Your task to perform on an android device: open app "Indeed Job Search" (install if not already installed) and go to login screen Image 0: 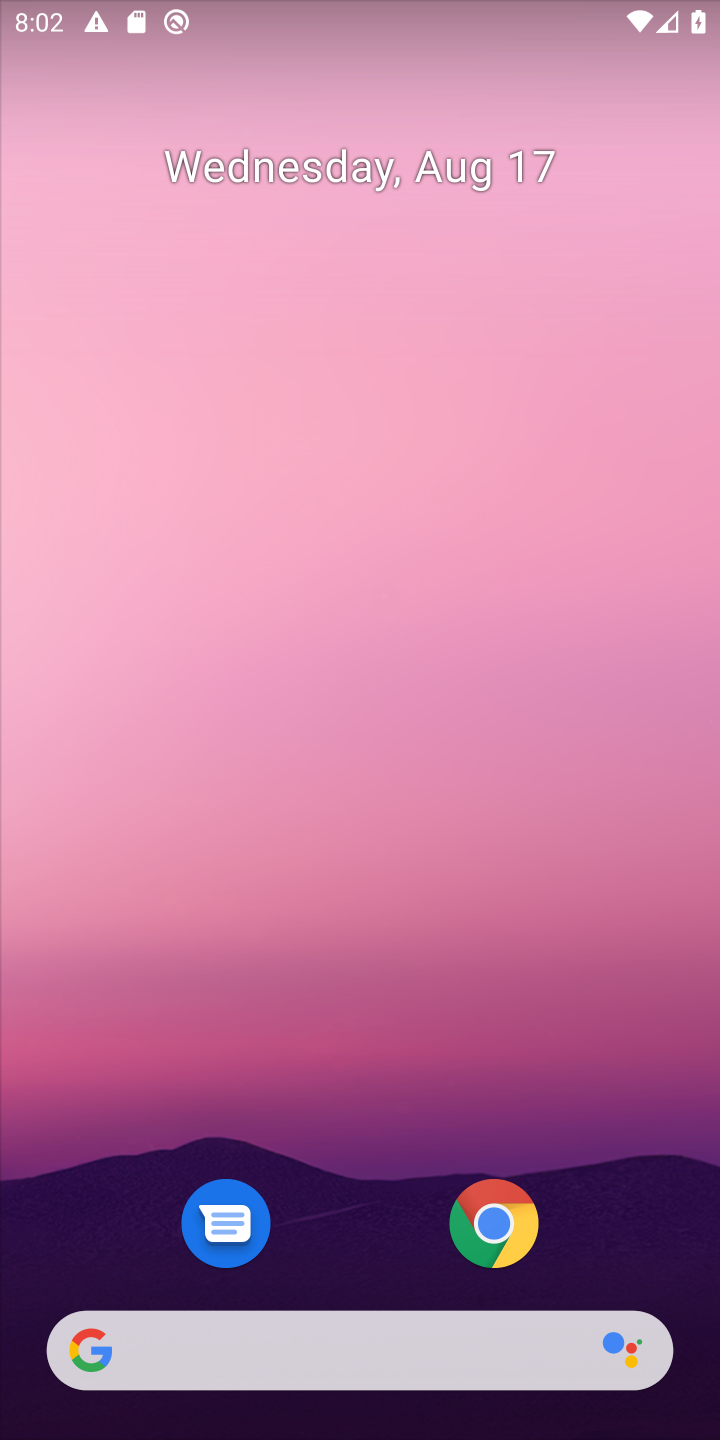
Step 0: click (210, 94)
Your task to perform on an android device: open app "Indeed Job Search" (install if not already installed) and go to login screen Image 1: 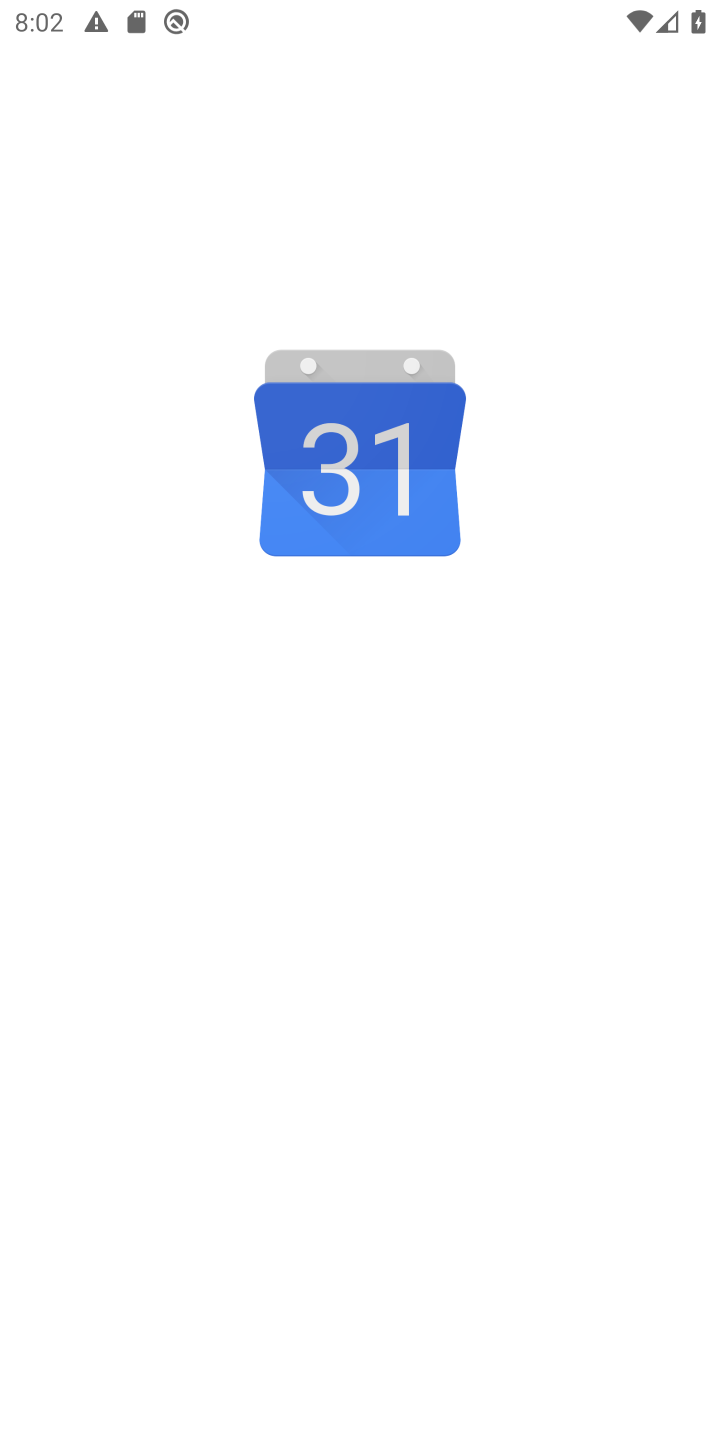
Step 1: drag from (395, 1115) to (395, 206)
Your task to perform on an android device: open app "Indeed Job Search" (install if not already installed) and go to login screen Image 2: 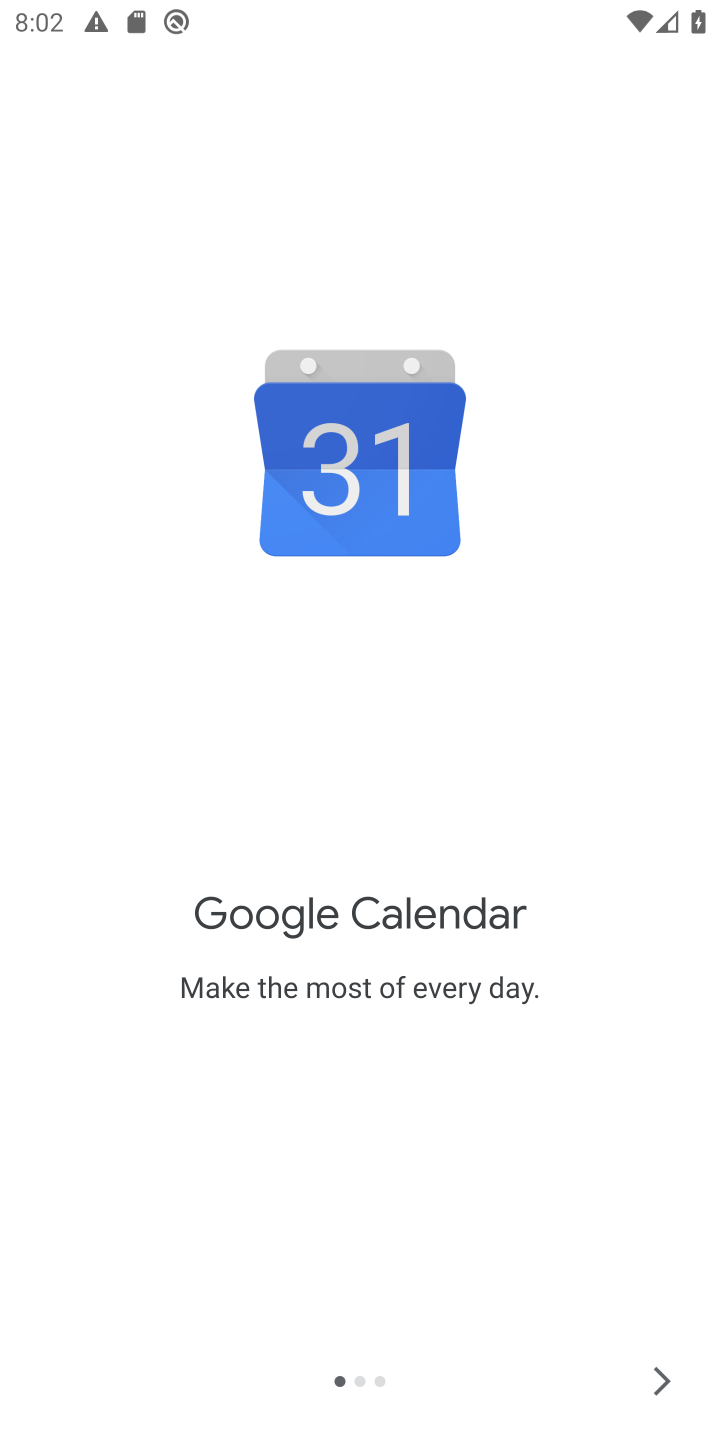
Step 2: press home button
Your task to perform on an android device: open app "Indeed Job Search" (install if not already installed) and go to login screen Image 3: 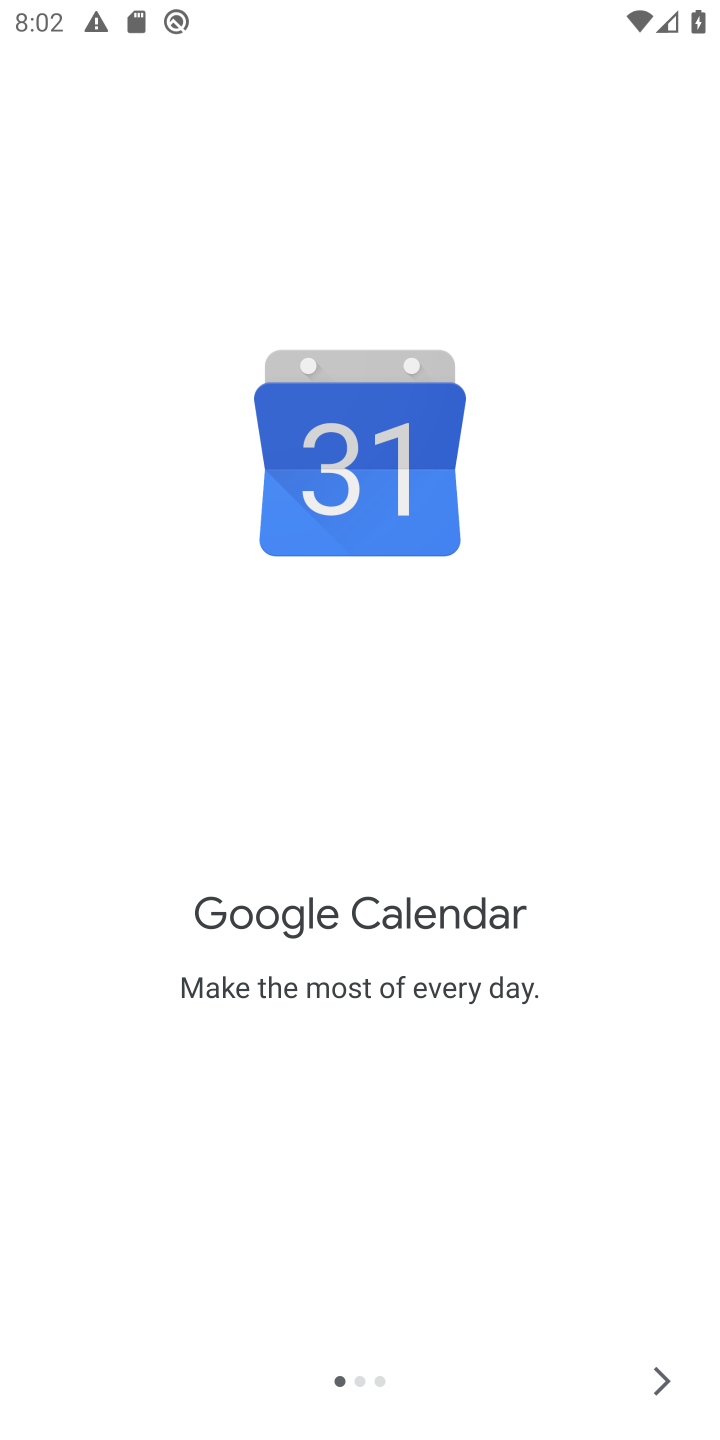
Step 3: press home button
Your task to perform on an android device: open app "Indeed Job Search" (install if not already installed) and go to login screen Image 4: 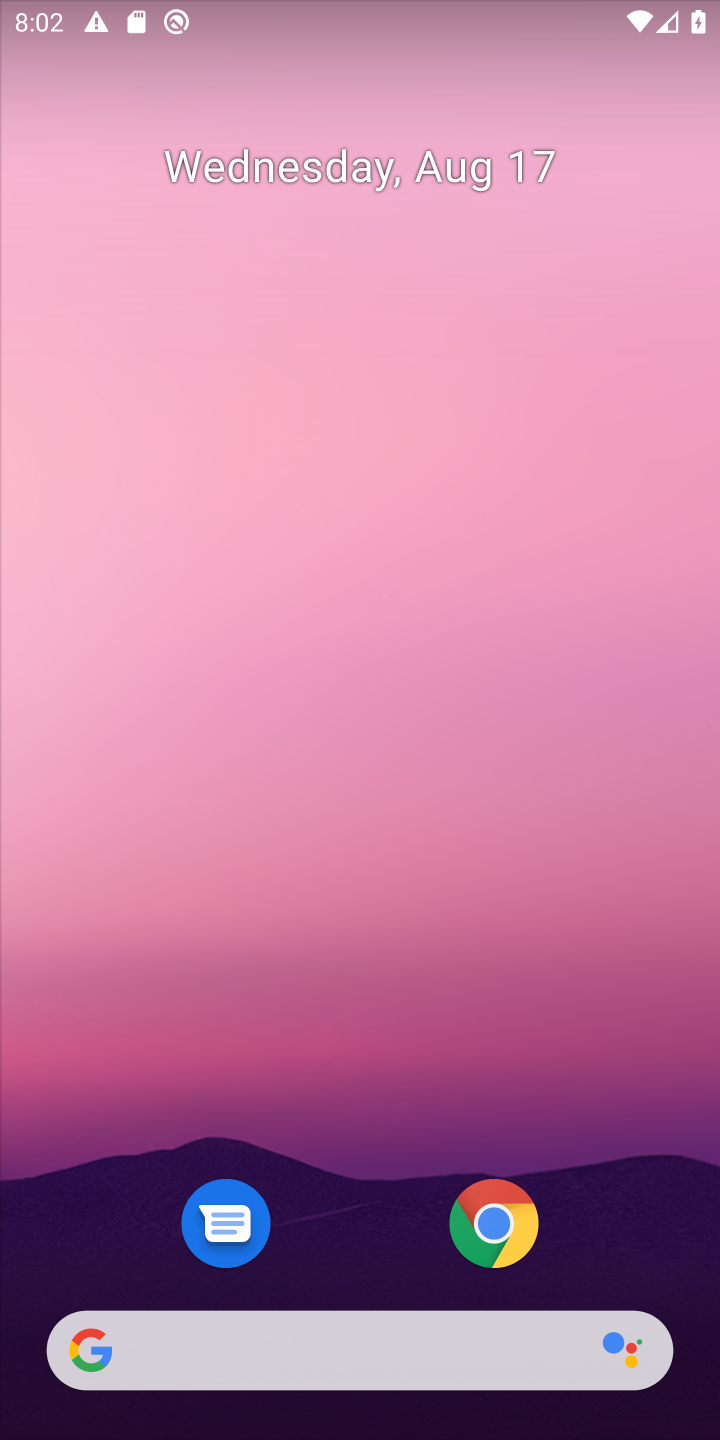
Step 4: drag from (383, 1092) to (370, 275)
Your task to perform on an android device: open app "Indeed Job Search" (install if not already installed) and go to login screen Image 5: 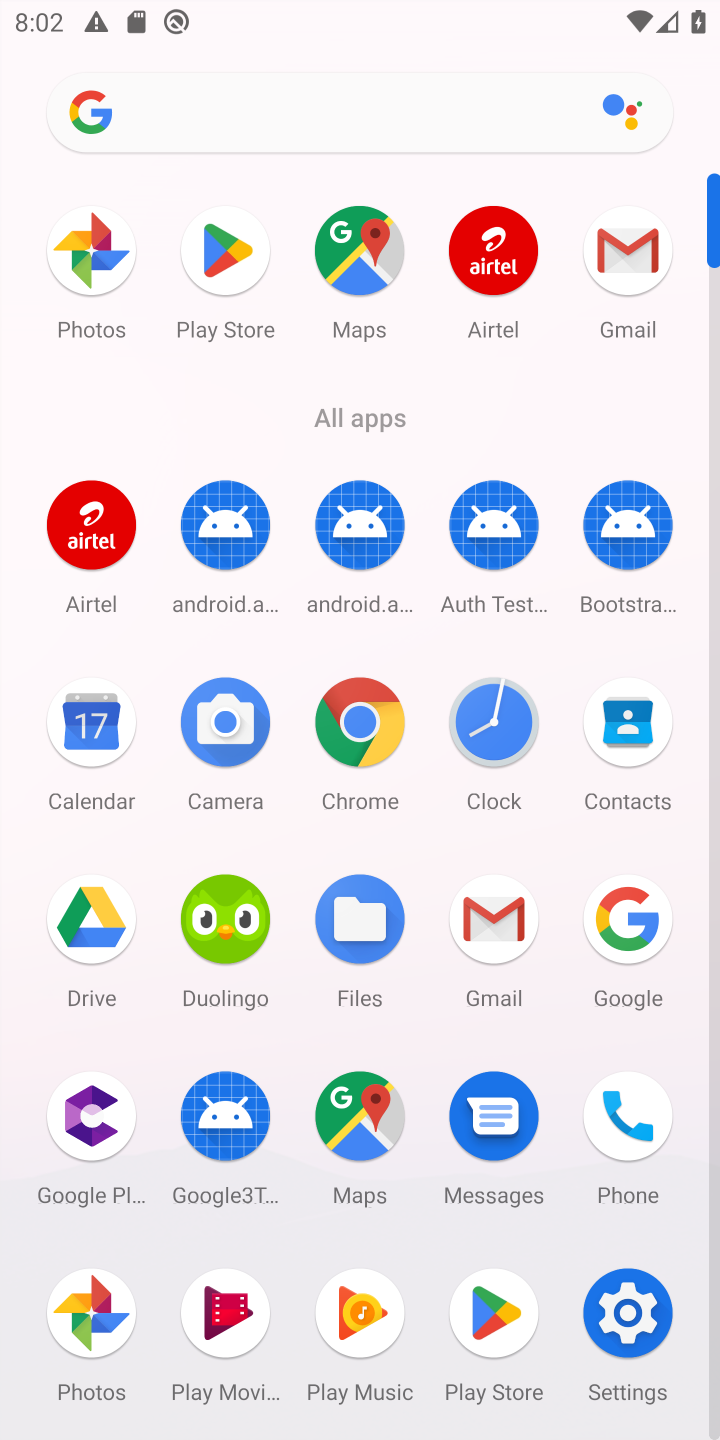
Step 5: click (501, 1302)
Your task to perform on an android device: open app "Indeed Job Search" (install if not already installed) and go to login screen Image 6: 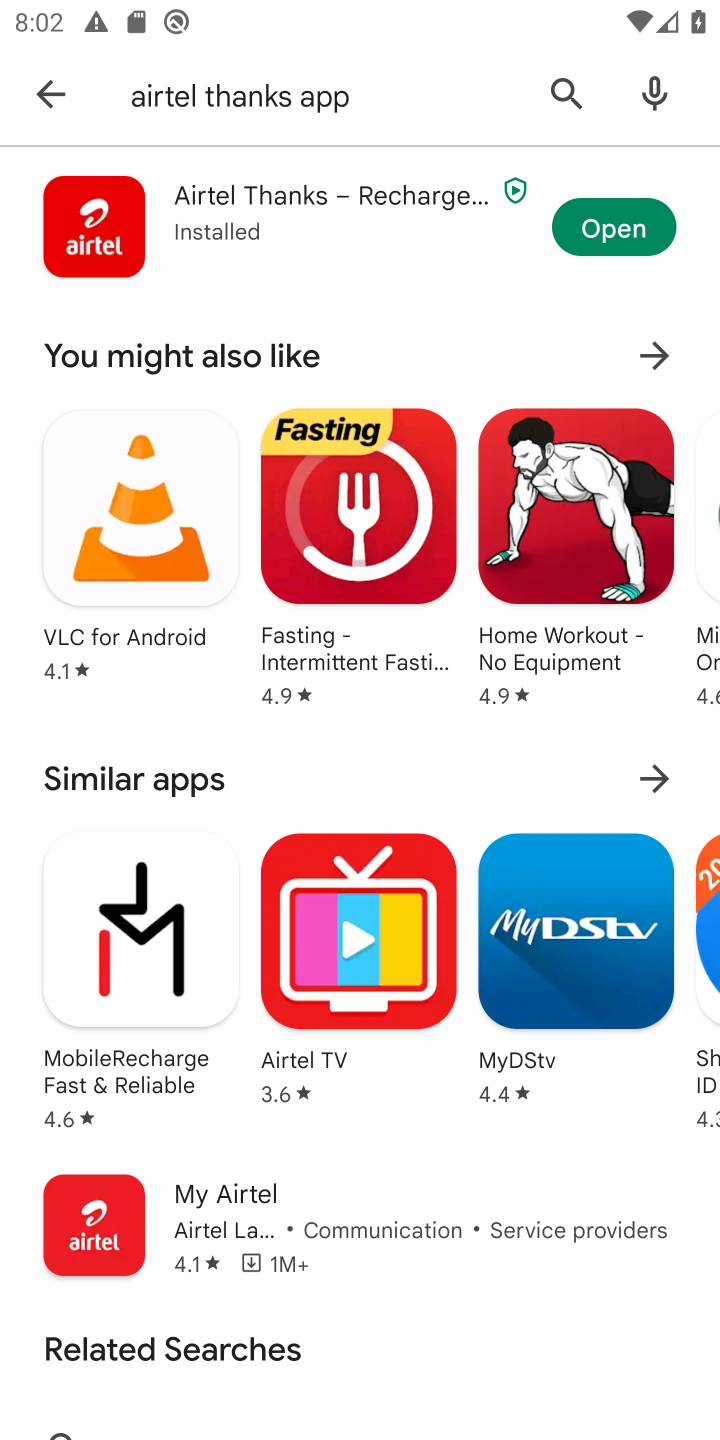
Step 6: click (561, 97)
Your task to perform on an android device: open app "Indeed Job Search" (install if not already installed) and go to login screen Image 7: 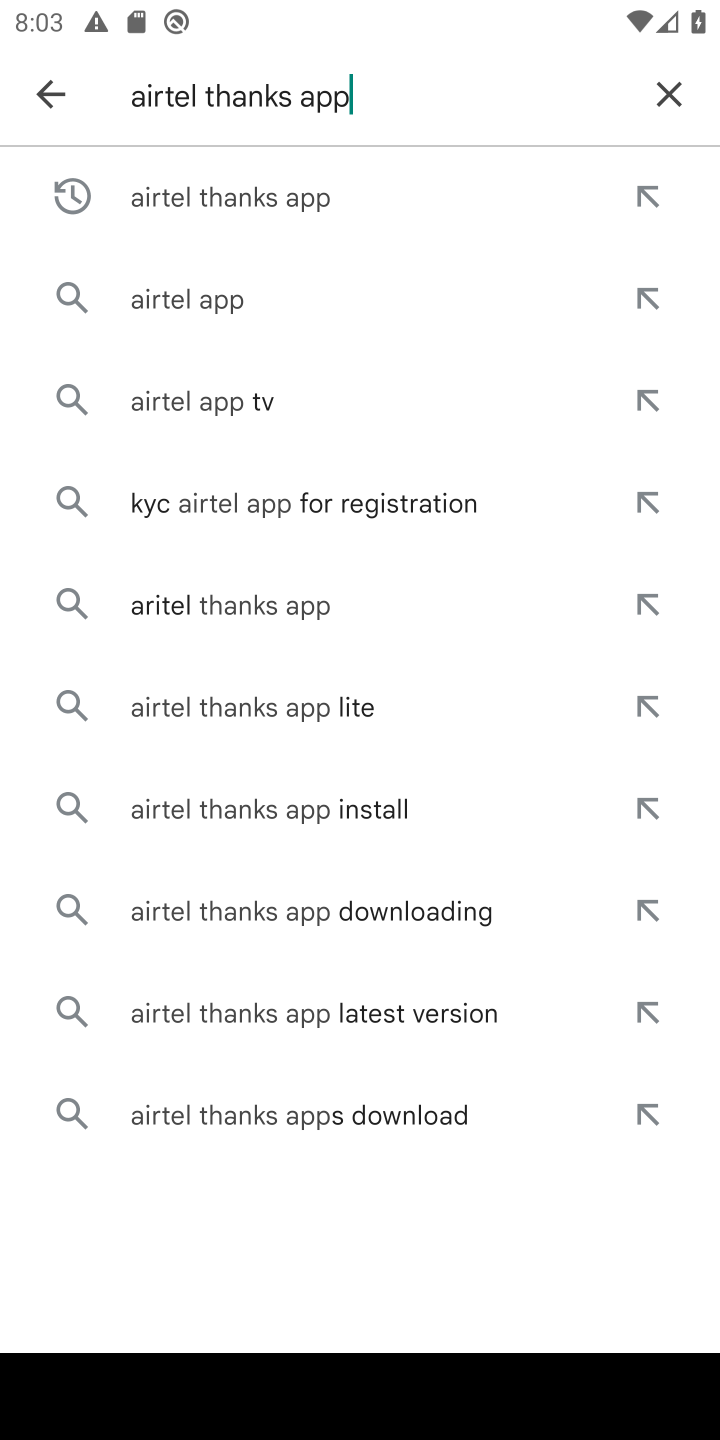
Step 7: click (672, 83)
Your task to perform on an android device: open app "Indeed Job Search" (install if not already installed) and go to login screen Image 8: 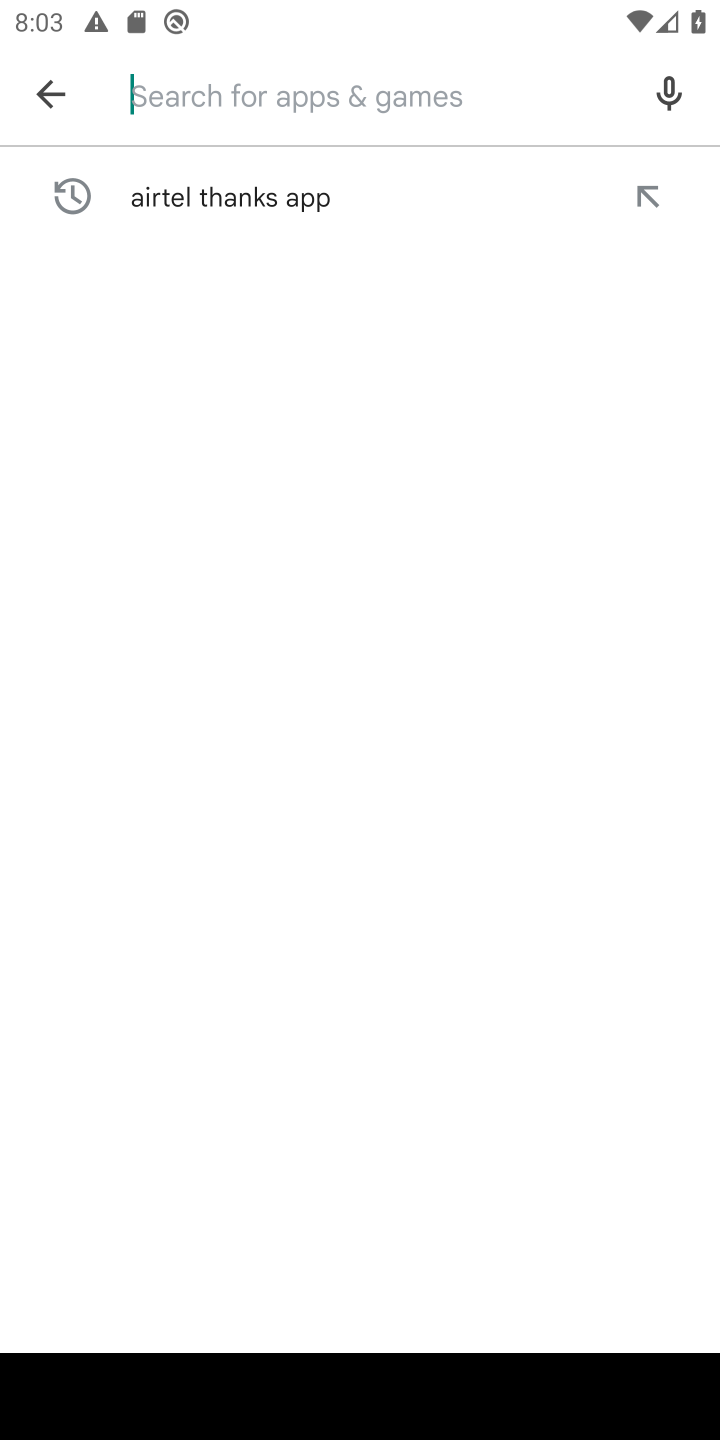
Step 8: type "Indeed Job Search"
Your task to perform on an android device: open app "Indeed Job Search" (install if not already installed) and go to login screen Image 9: 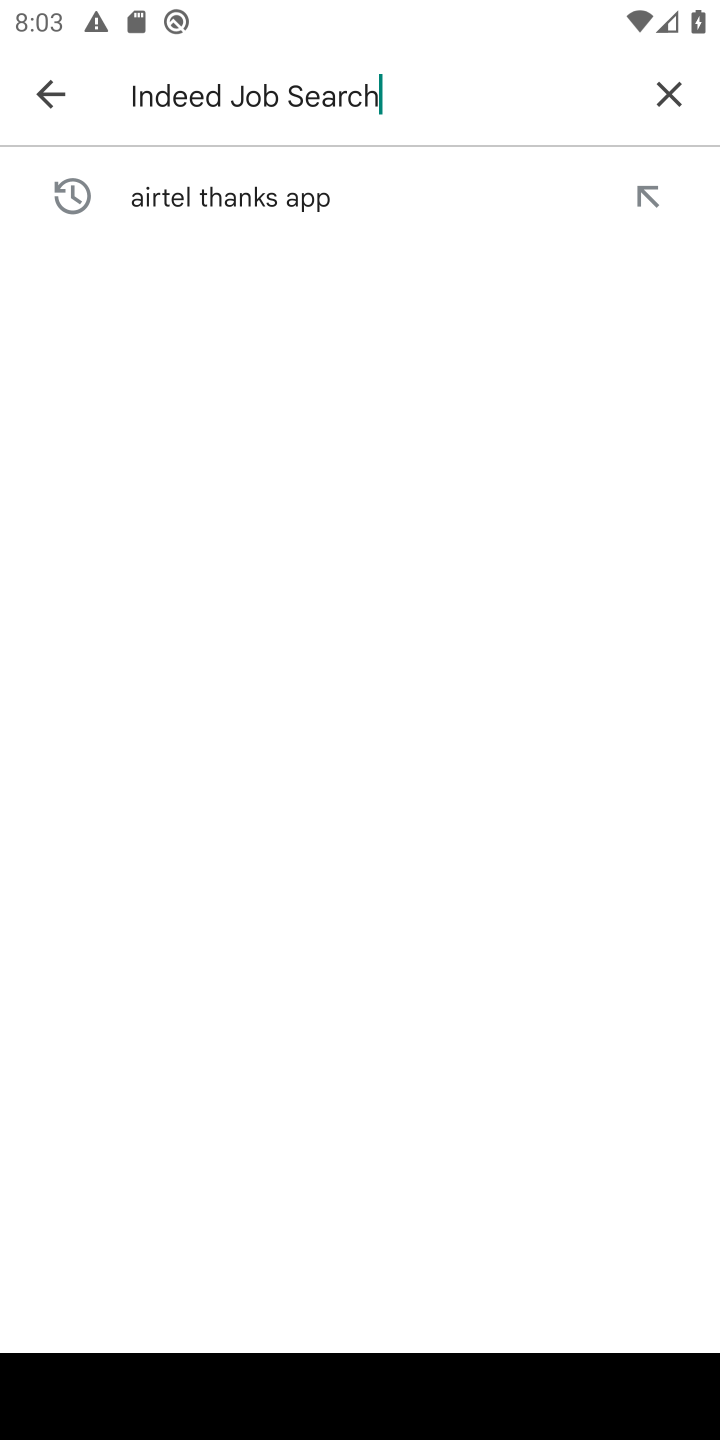
Step 9: type ""
Your task to perform on an android device: open app "Indeed Job Search" (install if not already installed) and go to login screen Image 10: 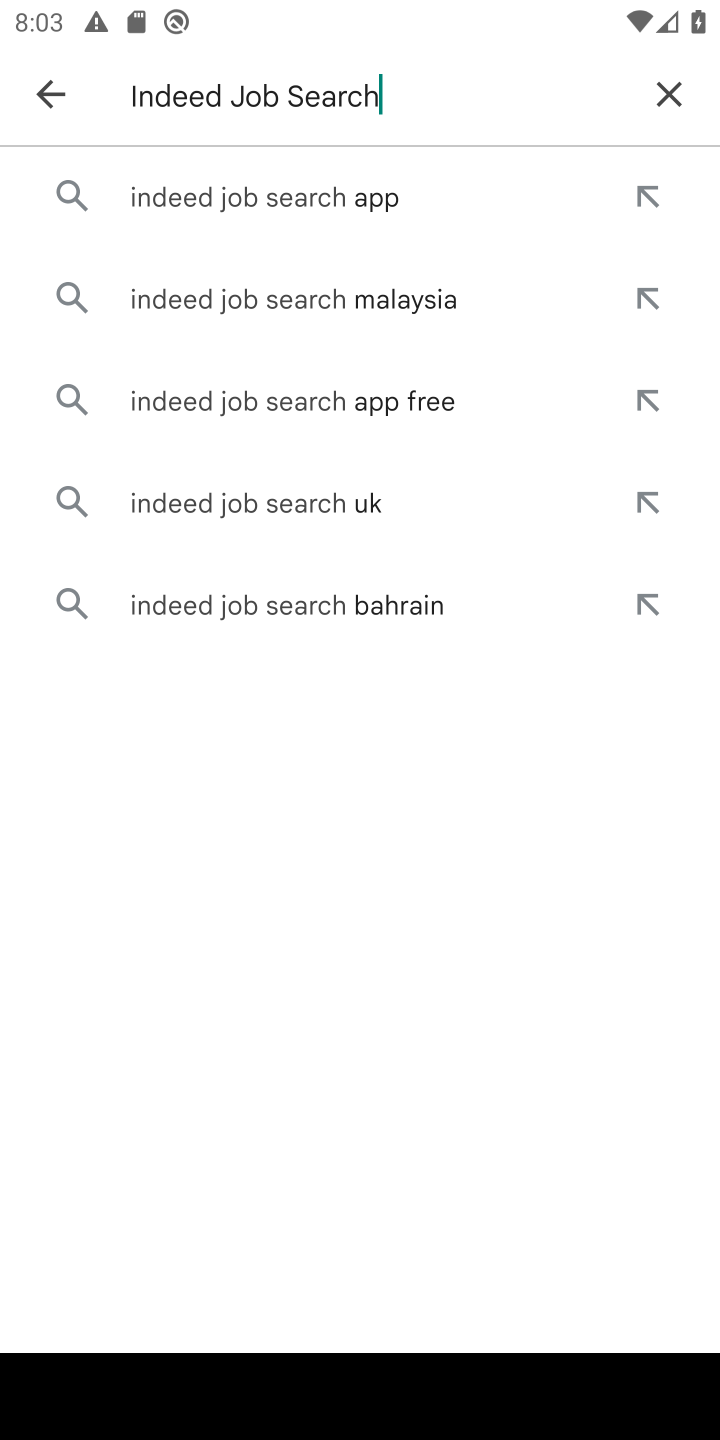
Step 10: click (306, 194)
Your task to perform on an android device: open app "Indeed Job Search" (install if not already installed) and go to login screen Image 11: 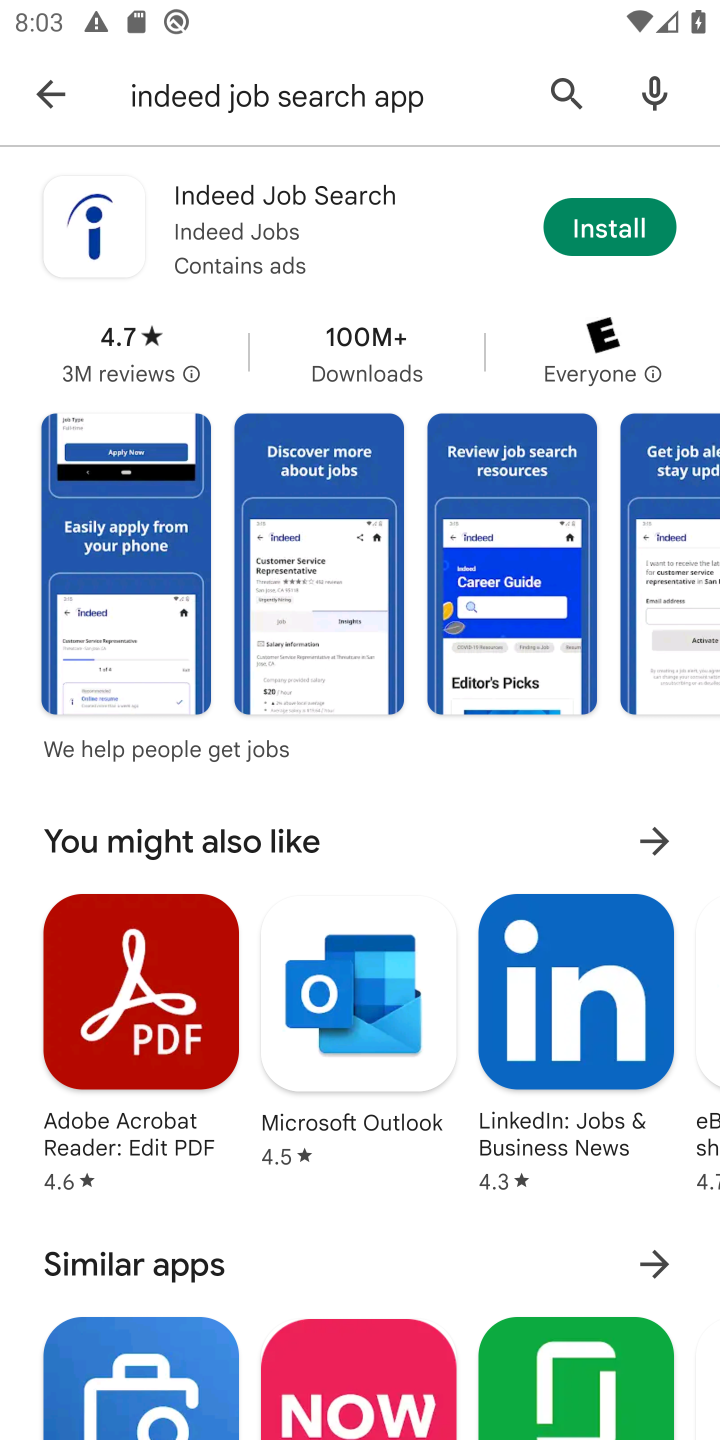
Step 11: click (600, 223)
Your task to perform on an android device: open app "Indeed Job Search" (install if not already installed) and go to login screen Image 12: 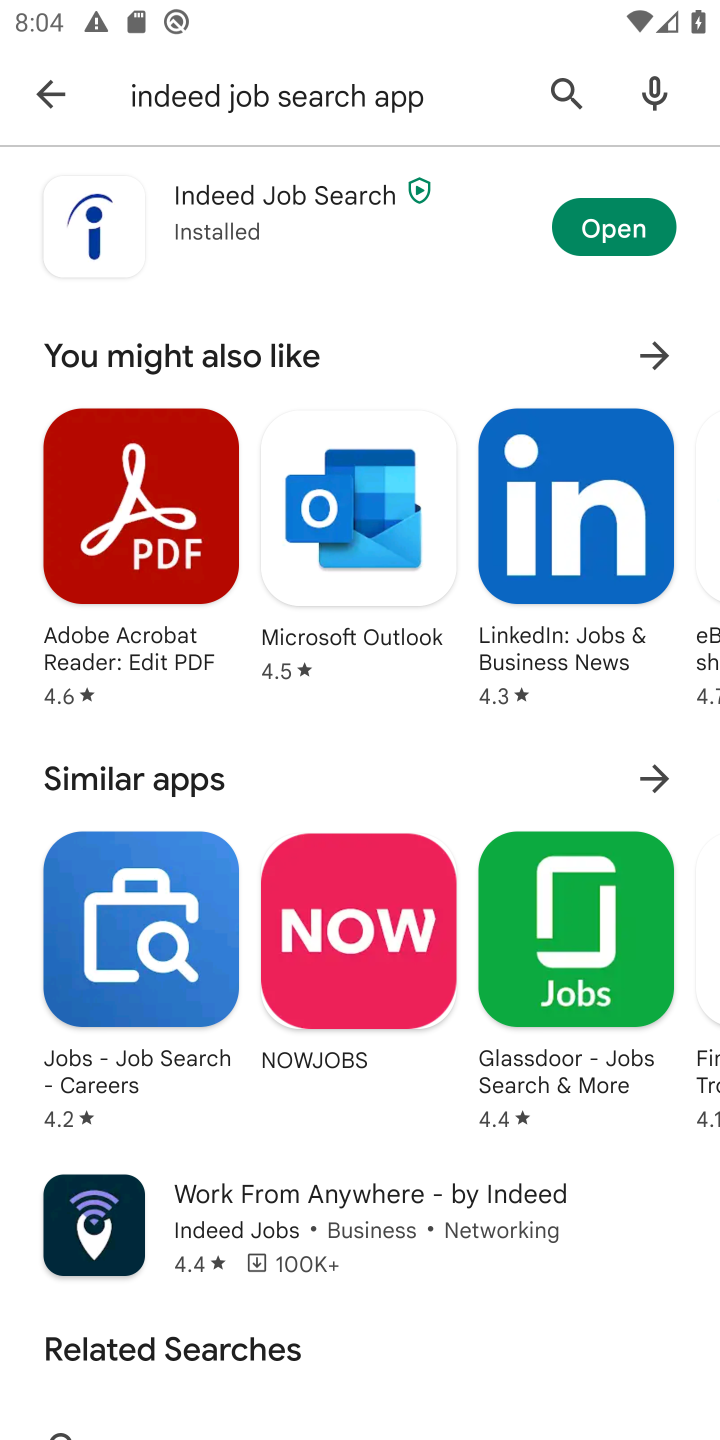
Step 12: click (649, 219)
Your task to perform on an android device: open app "Indeed Job Search" (install if not already installed) and go to login screen Image 13: 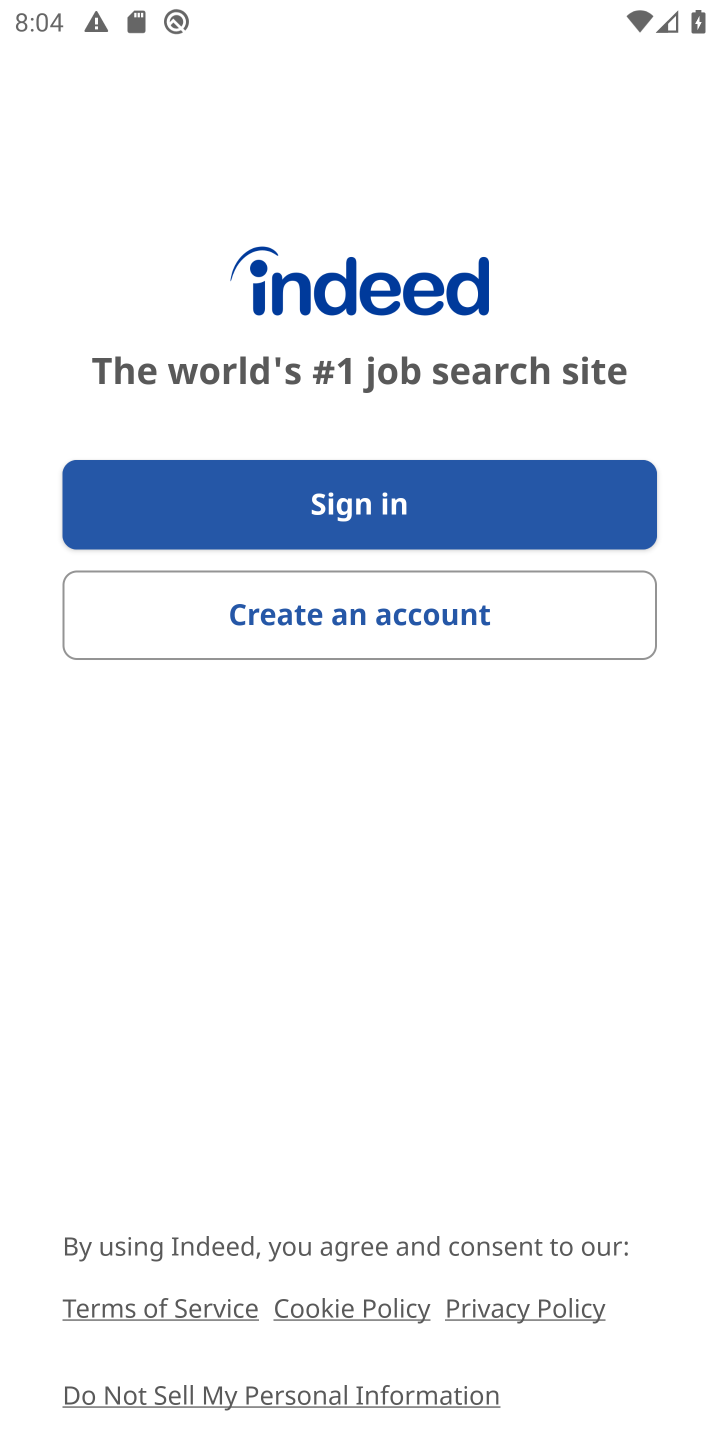
Step 13: task complete